Your task to perform on an android device: install app "HBO Max: Stream TV & Movies" Image 0: 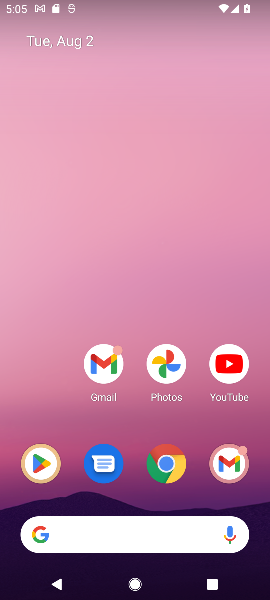
Step 0: click (39, 456)
Your task to perform on an android device: install app "HBO Max: Stream TV & Movies" Image 1: 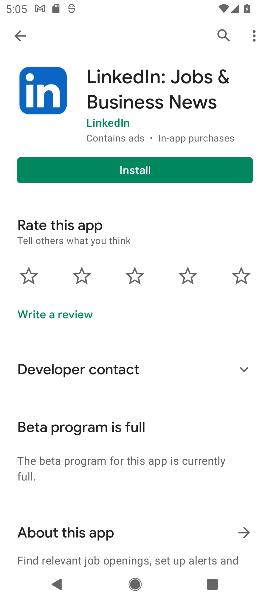
Step 1: click (222, 35)
Your task to perform on an android device: install app "HBO Max: Stream TV & Movies" Image 2: 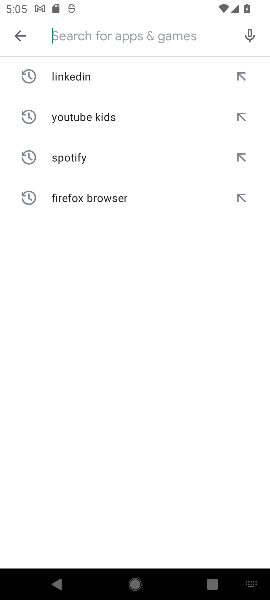
Step 2: type "HBO Max: Stream TV & Movies"
Your task to perform on an android device: install app "HBO Max: Stream TV & Movies" Image 3: 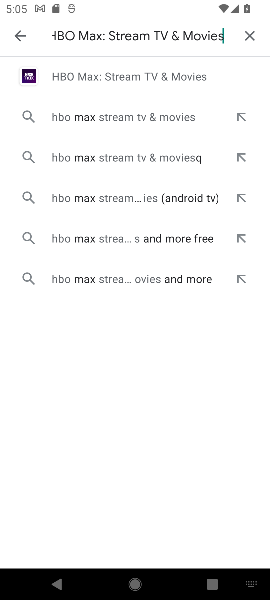
Step 3: click (177, 74)
Your task to perform on an android device: install app "HBO Max: Stream TV & Movies" Image 4: 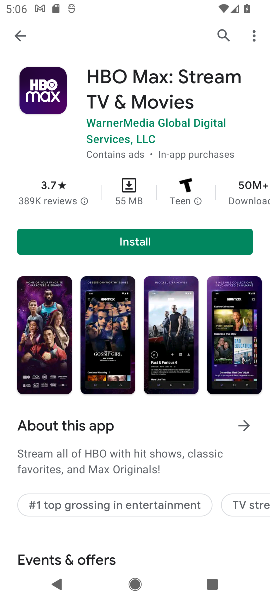
Step 4: click (133, 237)
Your task to perform on an android device: install app "HBO Max: Stream TV & Movies" Image 5: 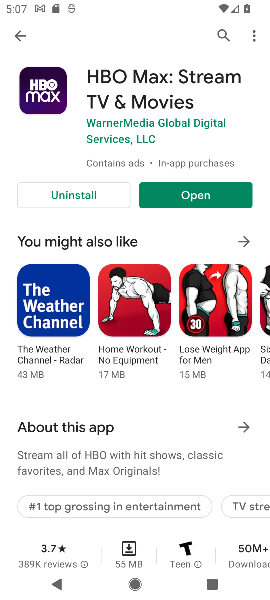
Step 5: task complete